Your task to perform on an android device: Open Youtube and go to "Your channel" Image 0: 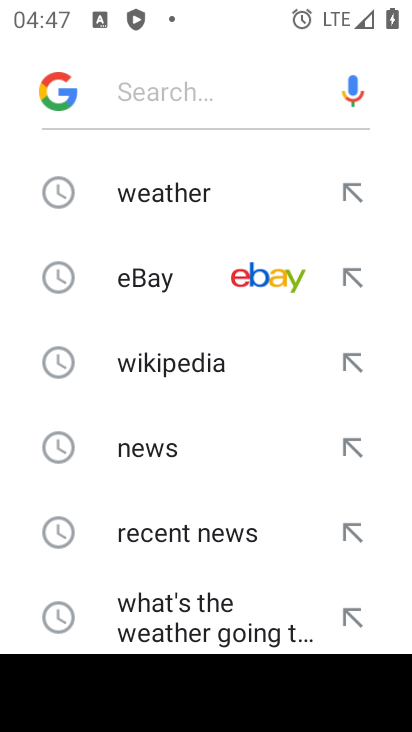
Step 0: press home button
Your task to perform on an android device: Open Youtube and go to "Your channel" Image 1: 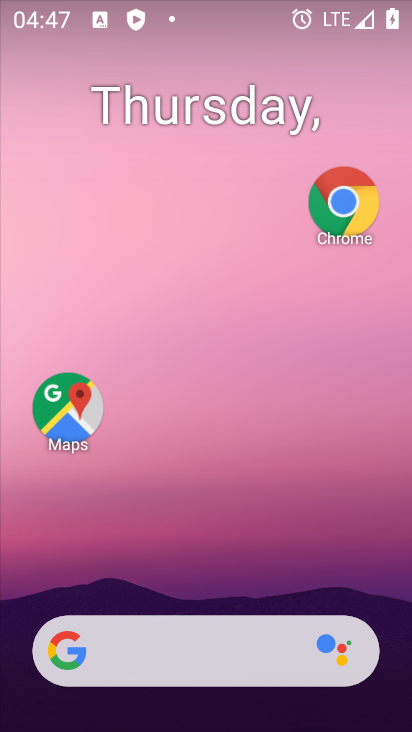
Step 1: drag from (246, 531) to (288, 10)
Your task to perform on an android device: Open Youtube and go to "Your channel" Image 2: 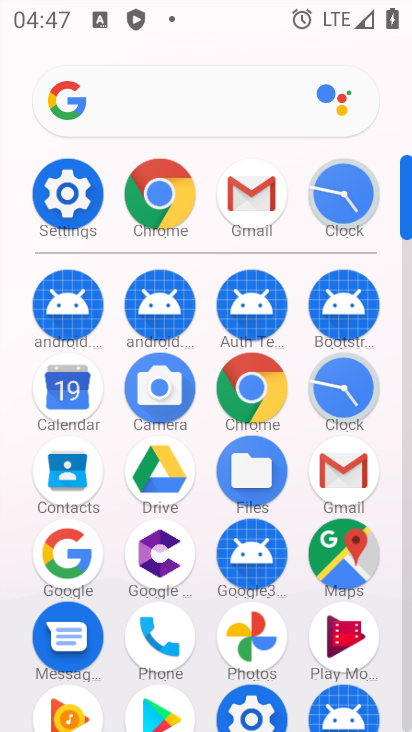
Step 2: drag from (293, 629) to (272, 226)
Your task to perform on an android device: Open Youtube and go to "Your channel" Image 3: 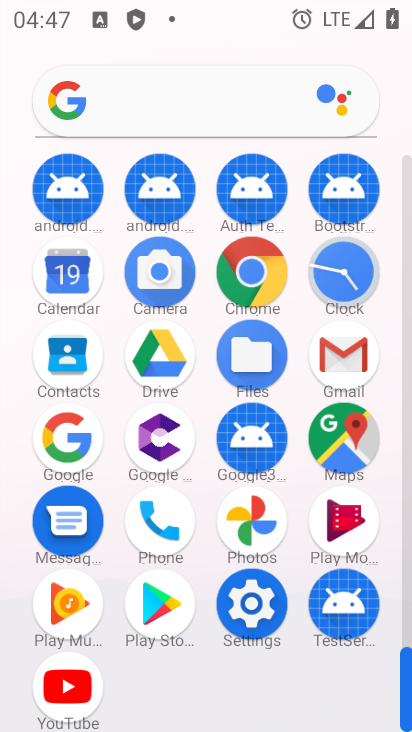
Step 3: click (77, 686)
Your task to perform on an android device: Open Youtube and go to "Your channel" Image 4: 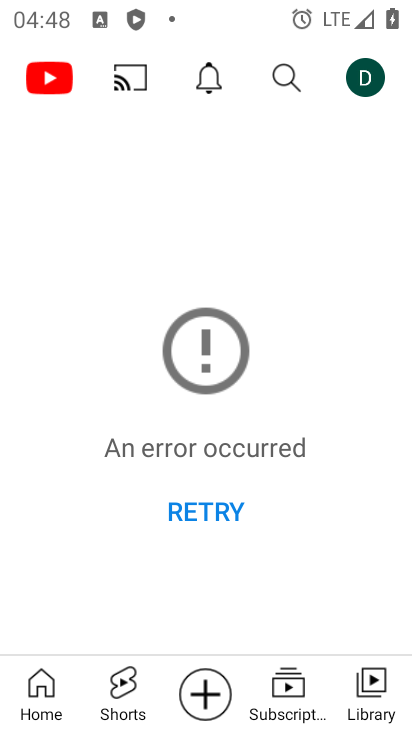
Step 4: click (375, 82)
Your task to perform on an android device: Open Youtube and go to "Your channel" Image 5: 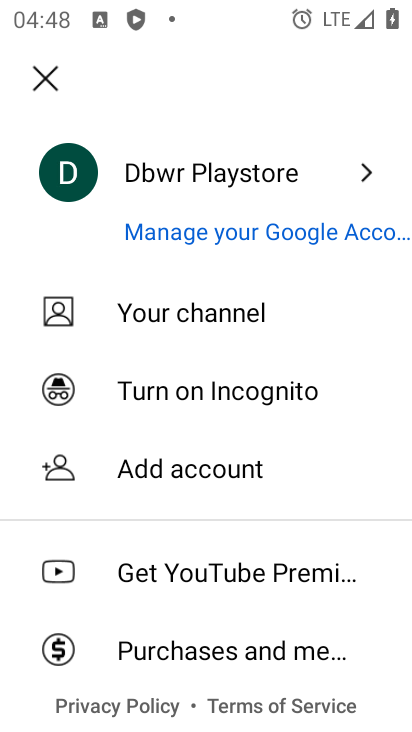
Step 5: click (251, 317)
Your task to perform on an android device: Open Youtube and go to "Your channel" Image 6: 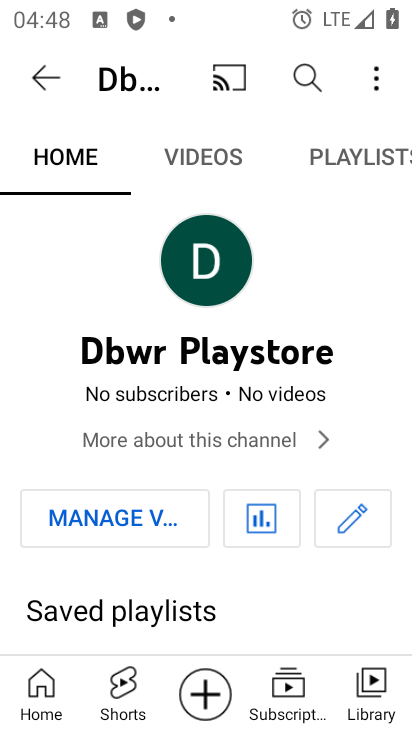
Step 6: task complete